Your task to perform on an android device: Do I have any events today? Image 0: 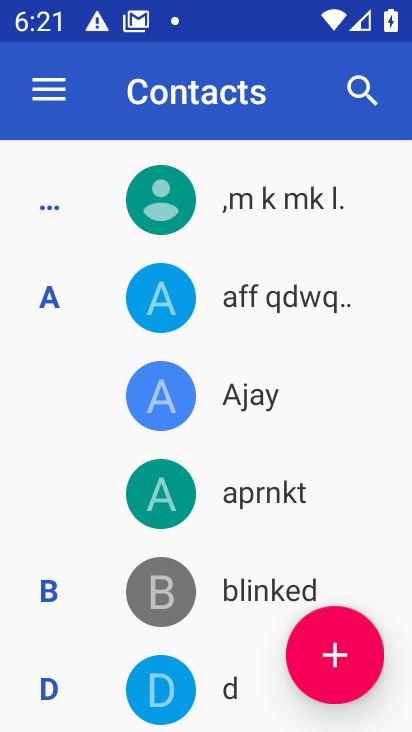
Step 0: press home button
Your task to perform on an android device: Do I have any events today? Image 1: 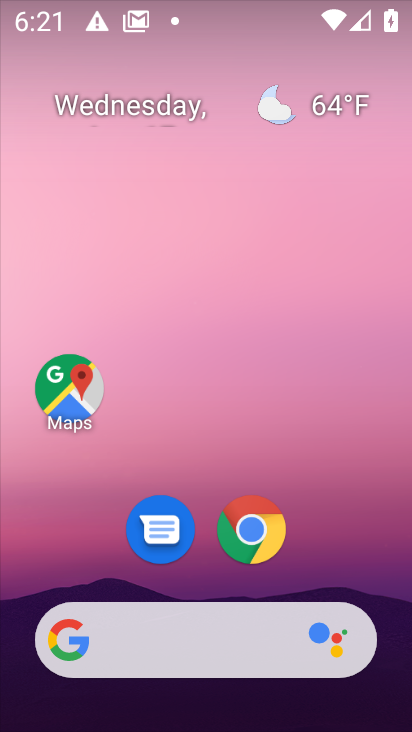
Step 1: drag from (191, 570) to (177, 155)
Your task to perform on an android device: Do I have any events today? Image 2: 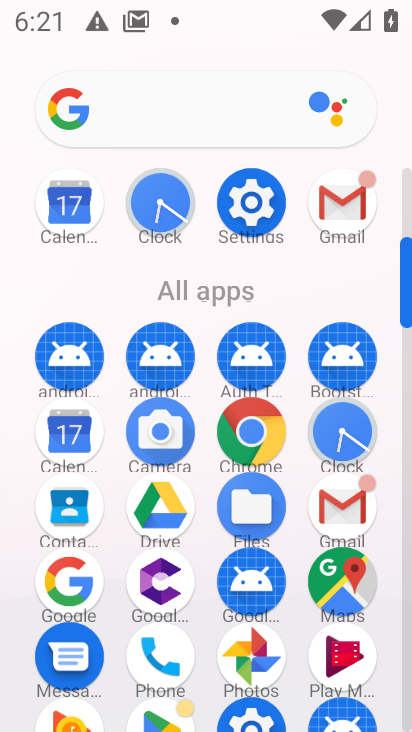
Step 2: drag from (201, 665) to (224, 369)
Your task to perform on an android device: Do I have any events today? Image 3: 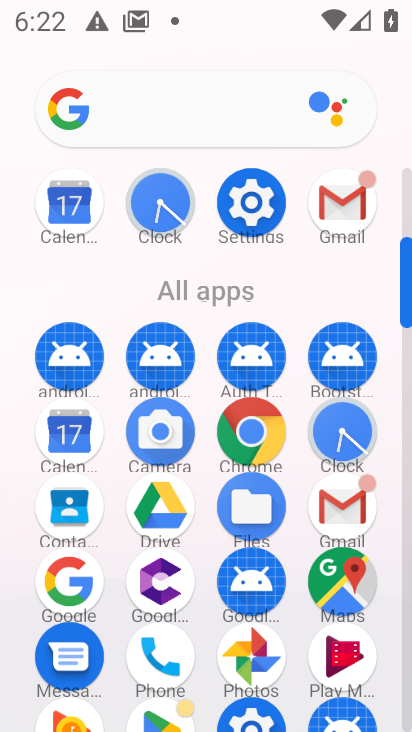
Step 3: drag from (198, 587) to (198, 458)
Your task to perform on an android device: Do I have any events today? Image 4: 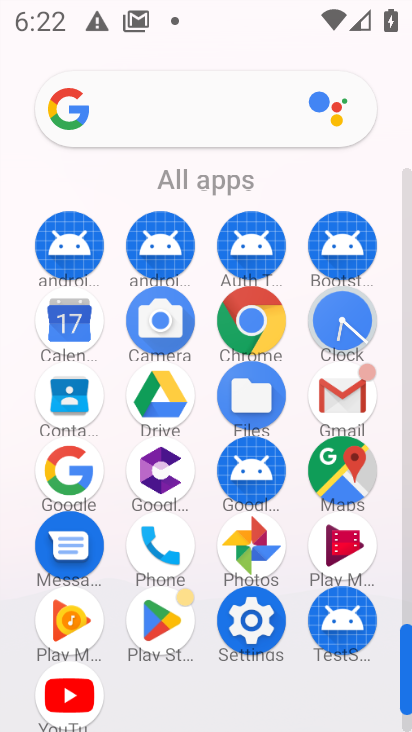
Step 4: click (62, 334)
Your task to perform on an android device: Do I have any events today? Image 5: 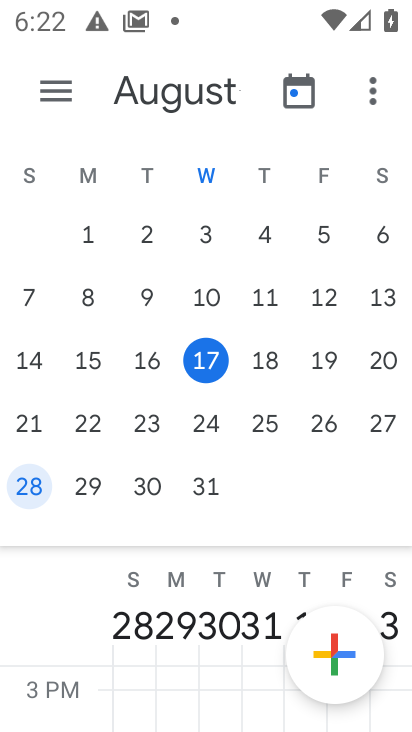
Step 5: click (204, 367)
Your task to perform on an android device: Do I have any events today? Image 6: 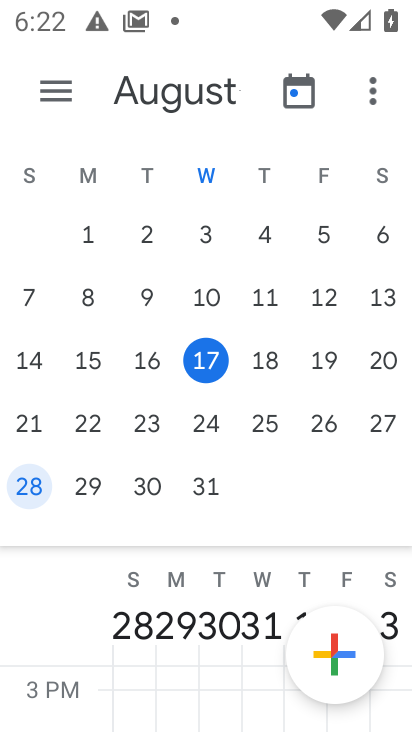
Step 6: click (204, 367)
Your task to perform on an android device: Do I have any events today? Image 7: 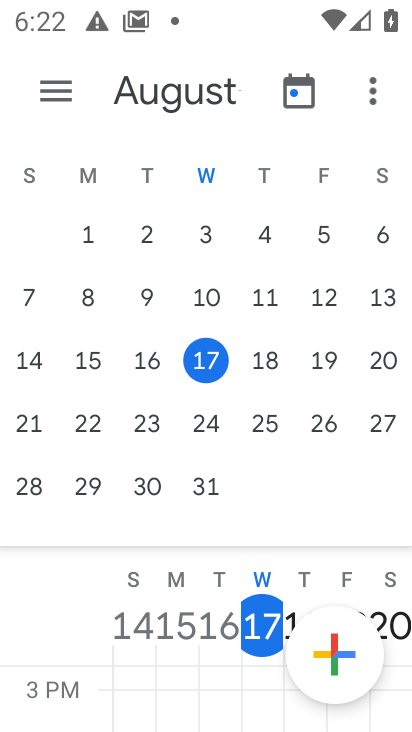
Step 7: click (59, 92)
Your task to perform on an android device: Do I have any events today? Image 8: 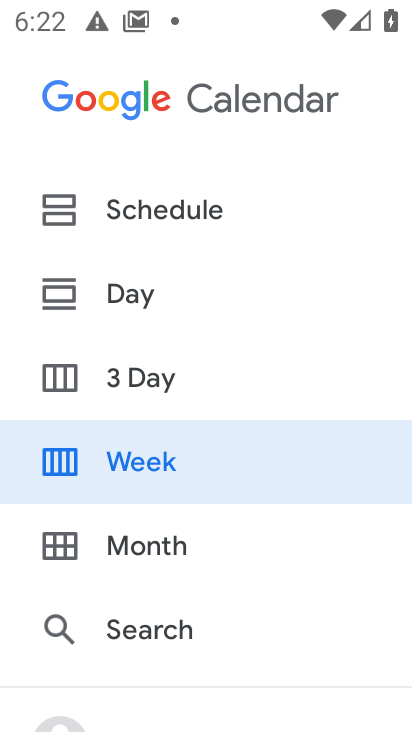
Step 8: click (146, 291)
Your task to perform on an android device: Do I have any events today? Image 9: 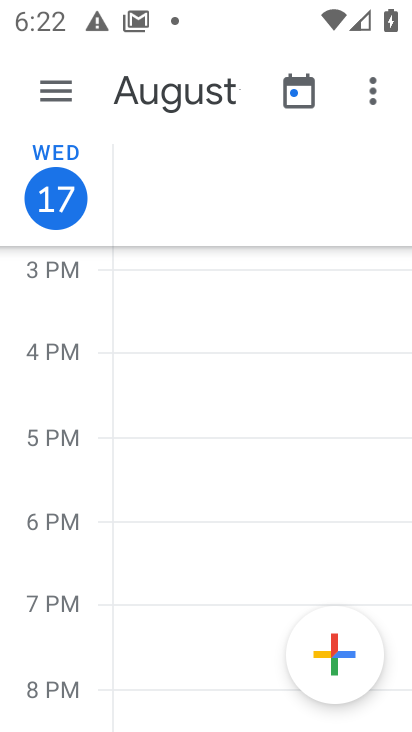
Step 9: task complete